Your task to perform on an android device: What's the news in Bangladesh? Image 0: 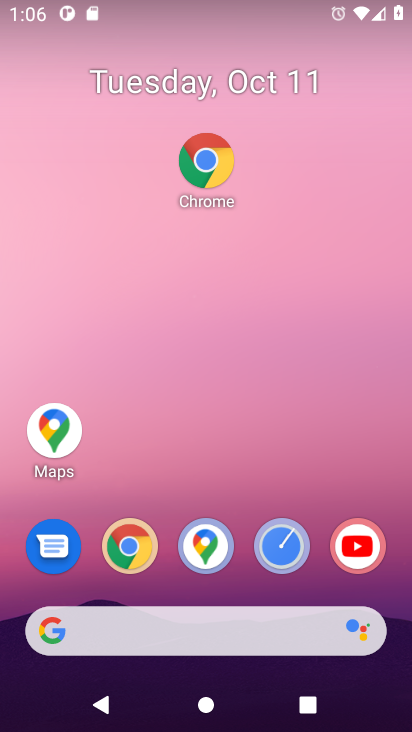
Step 0: click (130, 544)
Your task to perform on an android device: What's the news in Bangladesh? Image 1: 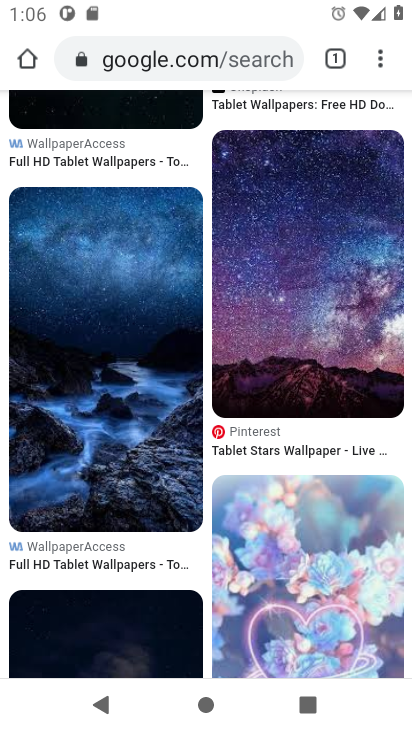
Step 1: click (133, 109)
Your task to perform on an android device: What's the news in Bangladesh? Image 2: 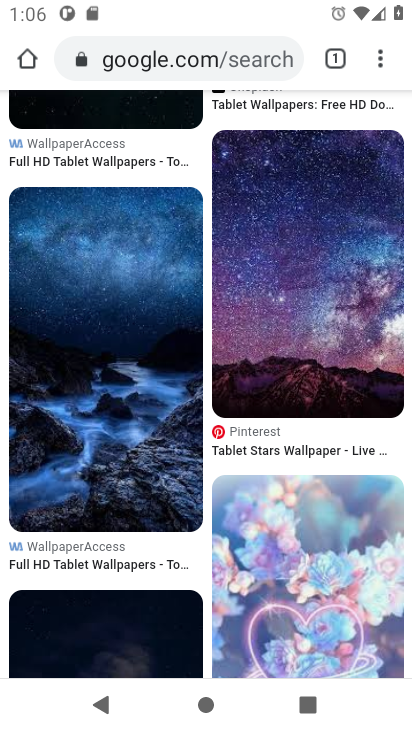
Step 2: click (144, 67)
Your task to perform on an android device: What's the news in Bangladesh? Image 3: 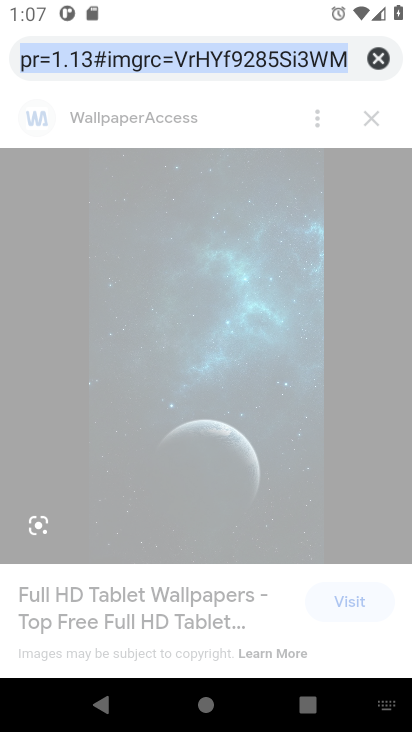
Step 3: type "news in Bangladesh"
Your task to perform on an android device: What's the news in Bangladesh? Image 4: 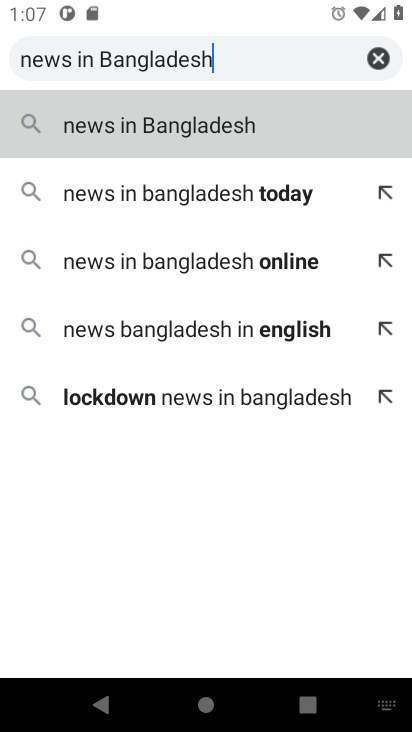
Step 4: type ""
Your task to perform on an android device: What's the news in Bangladesh? Image 5: 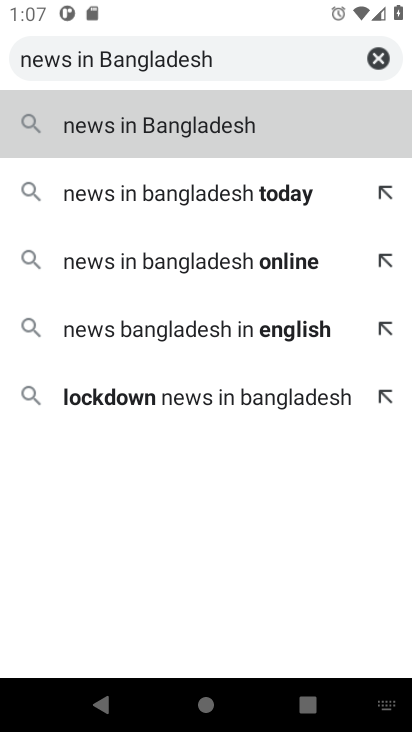
Step 5: drag from (251, 588) to (291, 430)
Your task to perform on an android device: What's the news in Bangladesh? Image 6: 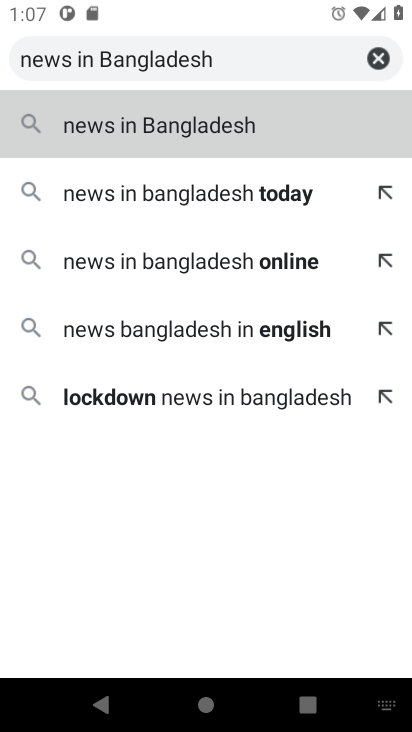
Step 6: press enter
Your task to perform on an android device: What's the news in Bangladesh? Image 7: 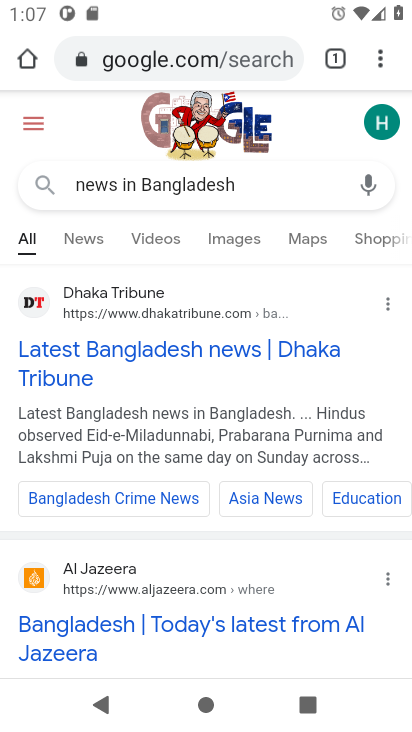
Step 7: click (78, 234)
Your task to perform on an android device: What's the news in Bangladesh? Image 8: 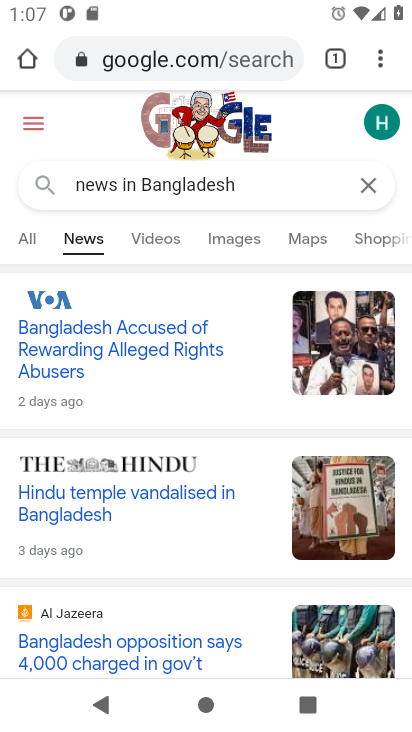
Step 8: task complete